Your task to perform on an android device: Open notification settings Image 0: 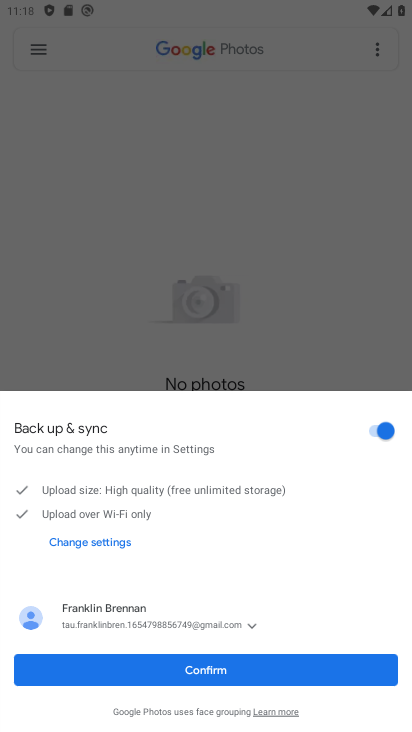
Step 0: press home button
Your task to perform on an android device: Open notification settings Image 1: 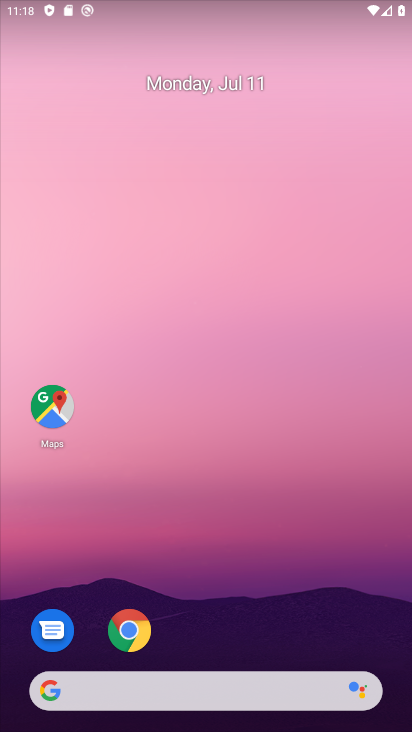
Step 1: drag from (203, 689) to (154, 121)
Your task to perform on an android device: Open notification settings Image 2: 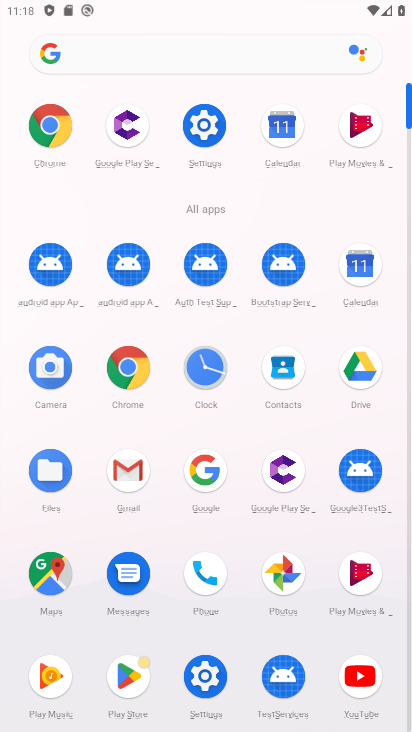
Step 2: click (206, 125)
Your task to perform on an android device: Open notification settings Image 3: 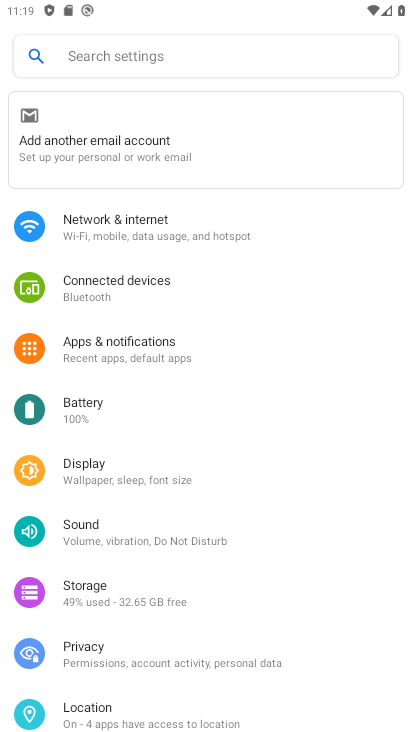
Step 3: click (121, 347)
Your task to perform on an android device: Open notification settings Image 4: 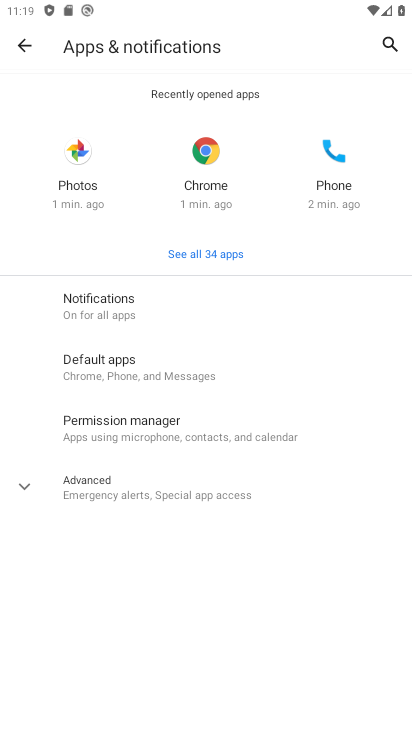
Step 4: click (116, 312)
Your task to perform on an android device: Open notification settings Image 5: 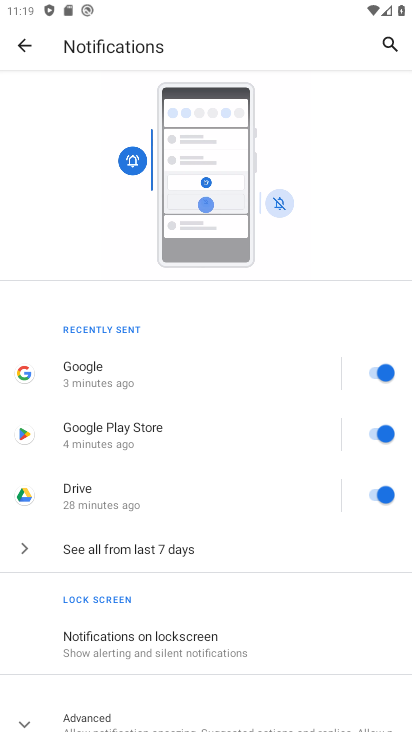
Step 5: task complete